Your task to perform on an android device: Is it going to rain tomorrow? Image 0: 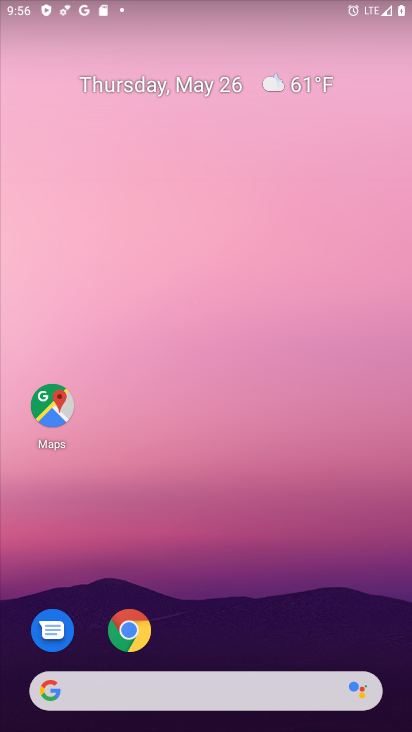
Step 0: click (274, 677)
Your task to perform on an android device: Is it going to rain tomorrow? Image 1: 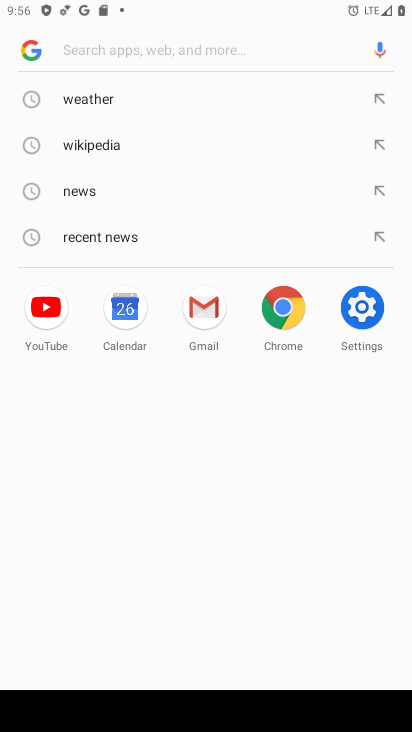
Step 1: click (62, 97)
Your task to perform on an android device: Is it going to rain tomorrow? Image 2: 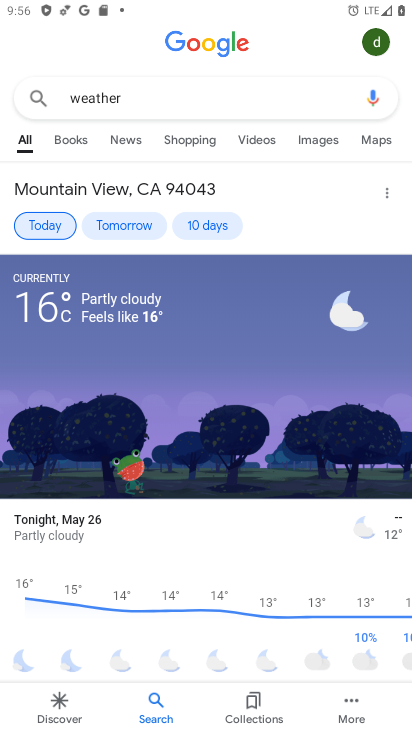
Step 2: click (102, 221)
Your task to perform on an android device: Is it going to rain tomorrow? Image 3: 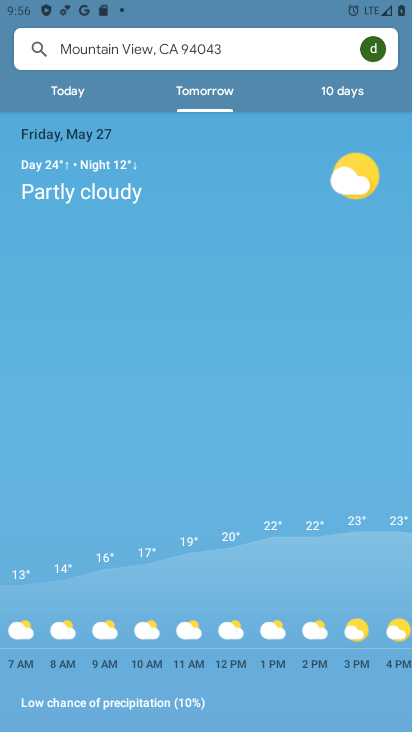
Step 3: task complete